Your task to perform on an android device: toggle improve location accuracy Image 0: 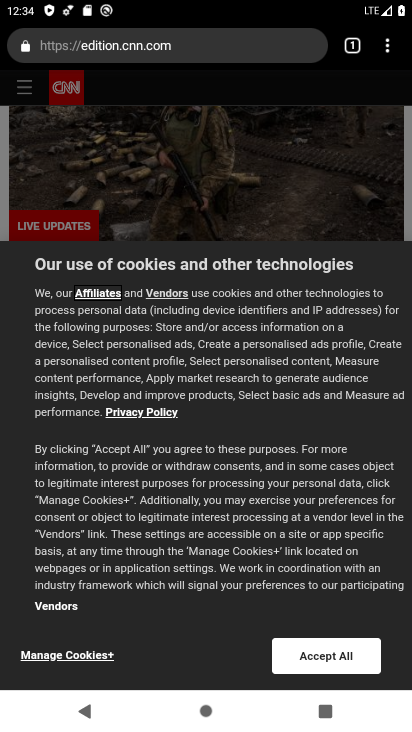
Step 0: press home button
Your task to perform on an android device: toggle improve location accuracy Image 1: 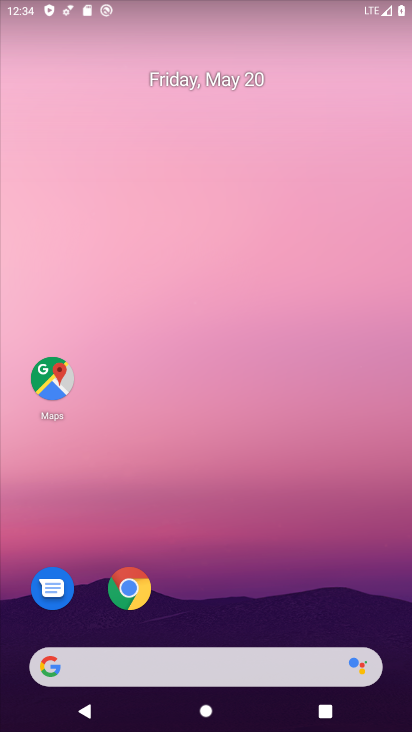
Step 1: drag from (385, 613) to (314, 1)
Your task to perform on an android device: toggle improve location accuracy Image 2: 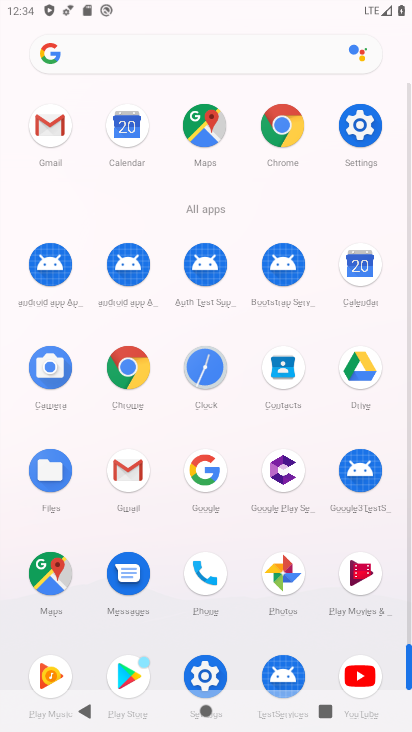
Step 2: click (208, 676)
Your task to perform on an android device: toggle improve location accuracy Image 3: 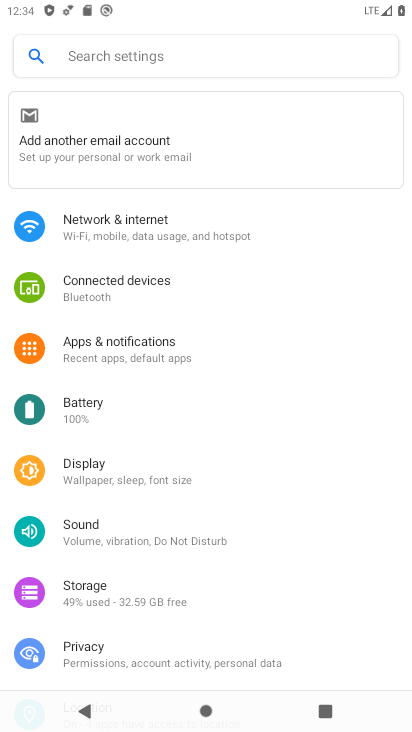
Step 3: drag from (263, 620) to (241, 441)
Your task to perform on an android device: toggle improve location accuracy Image 4: 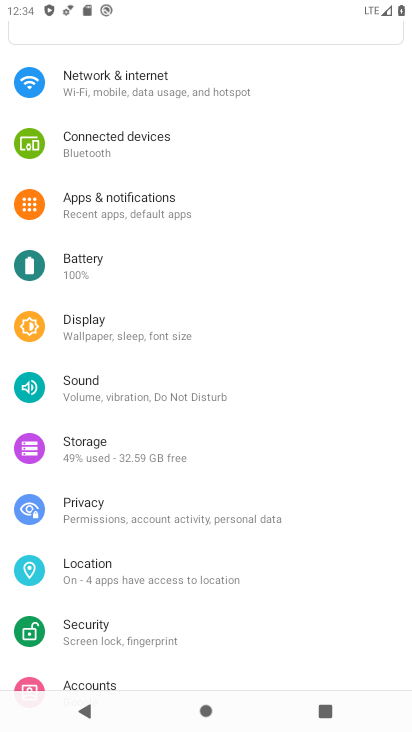
Step 4: click (95, 571)
Your task to perform on an android device: toggle improve location accuracy Image 5: 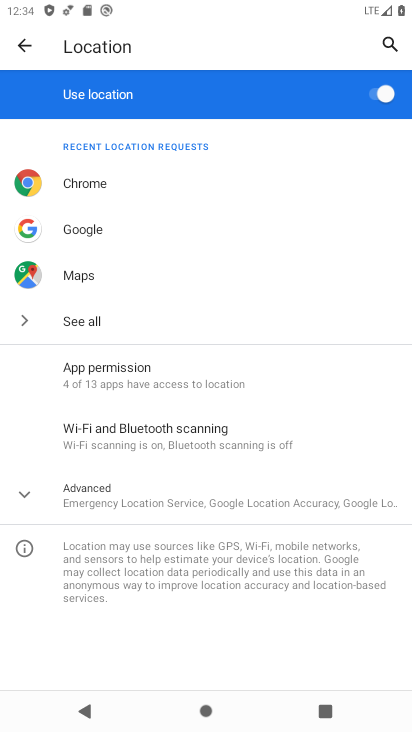
Step 5: click (16, 493)
Your task to perform on an android device: toggle improve location accuracy Image 6: 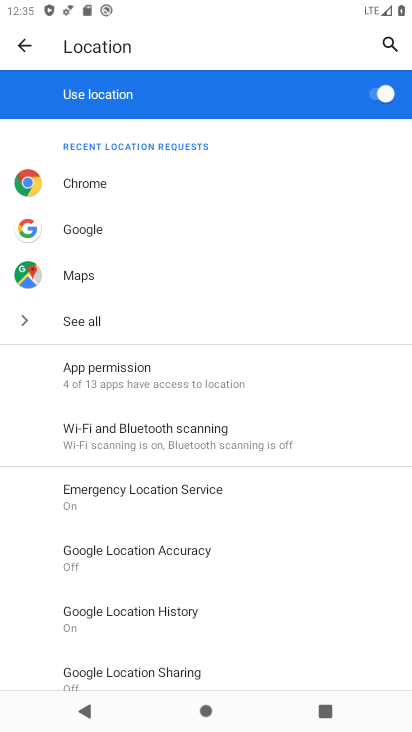
Step 6: click (135, 550)
Your task to perform on an android device: toggle improve location accuracy Image 7: 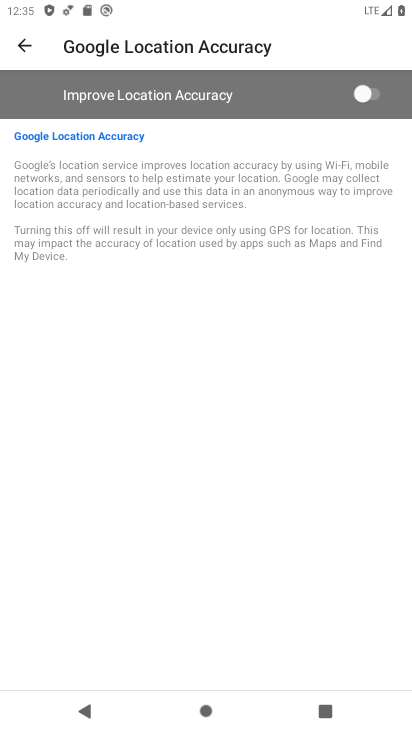
Step 7: click (368, 99)
Your task to perform on an android device: toggle improve location accuracy Image 8: 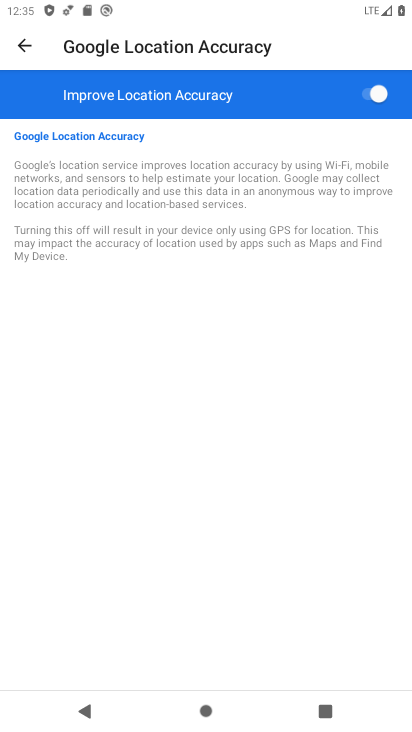
Step 8: task complete